Your task to perform on an android device: What's the weather going to be this weekend? Image 0: 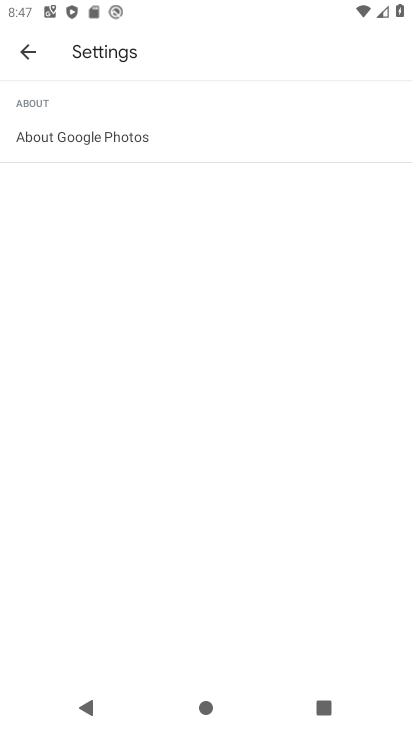
Step 0: press home button
Your task to perform on an android device: What's the weather going to be this weekend? Image 1: 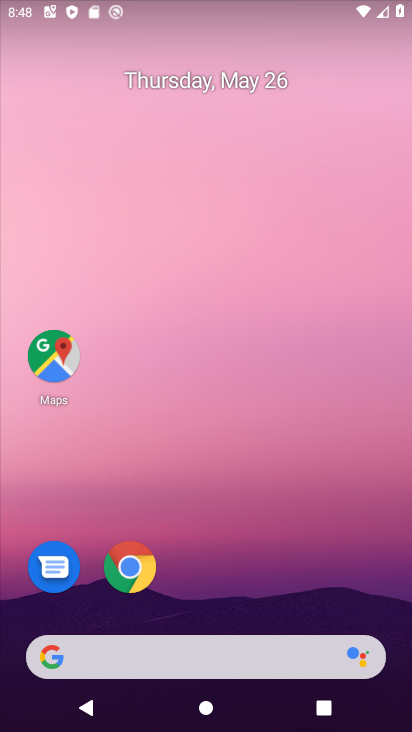
Step 1: click (58, 653)
Your task to perform on an android device: What's the weather going to be this weekend? Image 2: 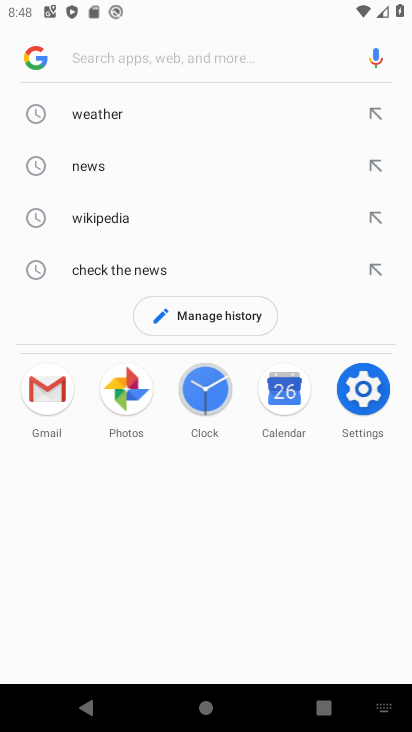
Step 2: click (98, 108)
Your task to perform on an android device: What's the weather going to be this weekend? Image 3: 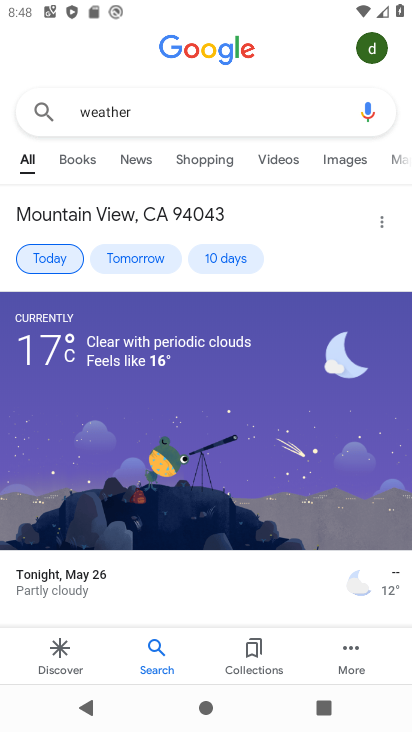
Step 3: click (241, 260)
Your task to perform on an android device: What's the weather going to be this weekend? Image 4: 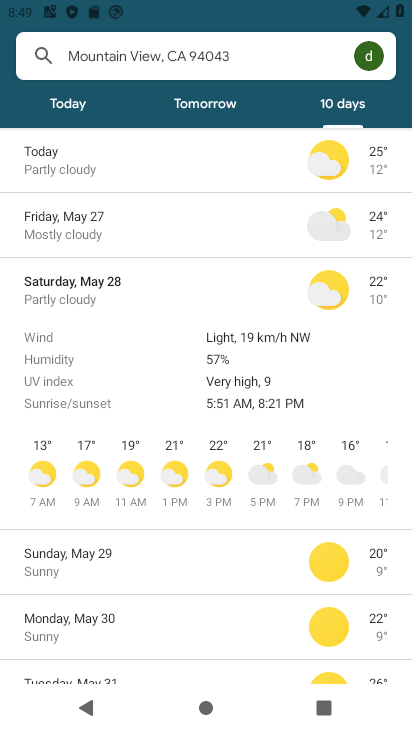
Step 4: task complete